Your task to perform on an android device: Clear the cart on costco. Add asus rog to the cart on costco Image 0: 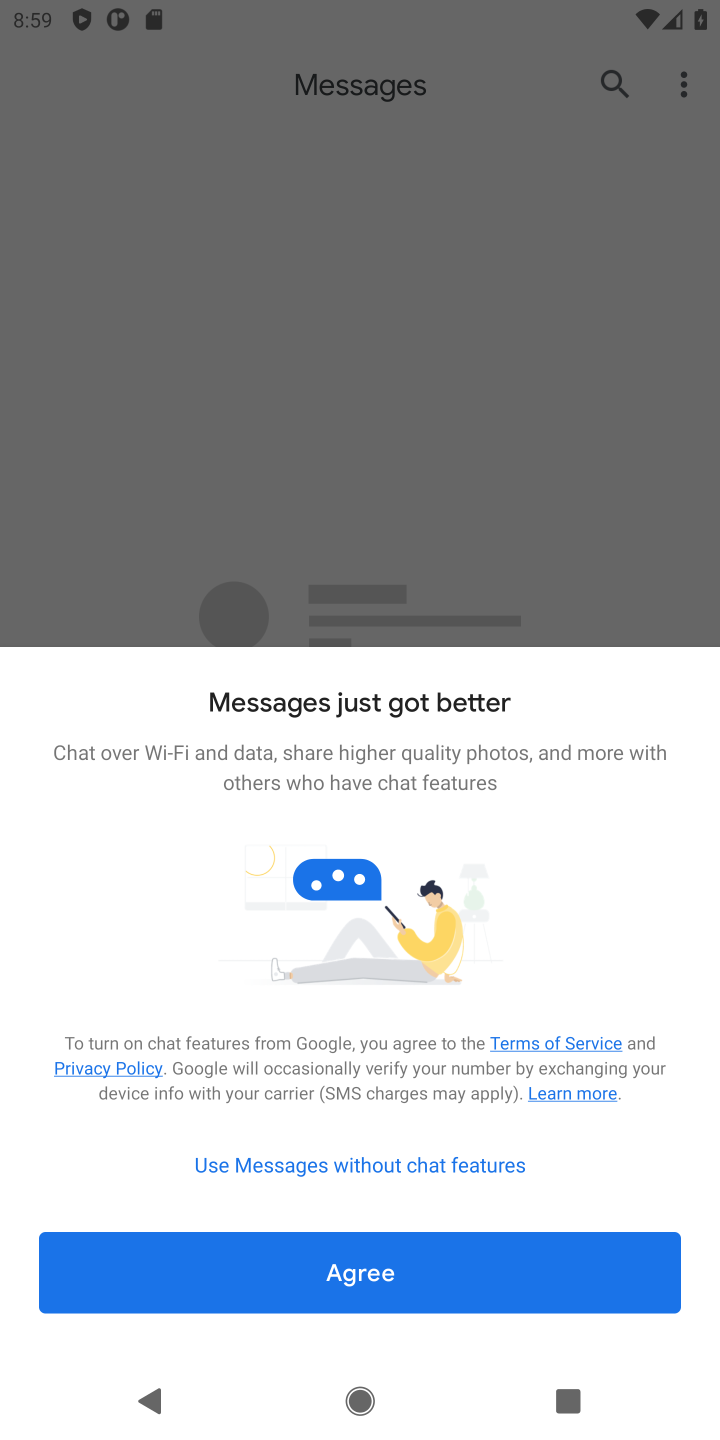
Step 0: press home button
Your task to perform on an android device: Clear the cart on costco. Add asus rog to the cart on costco Image 1: 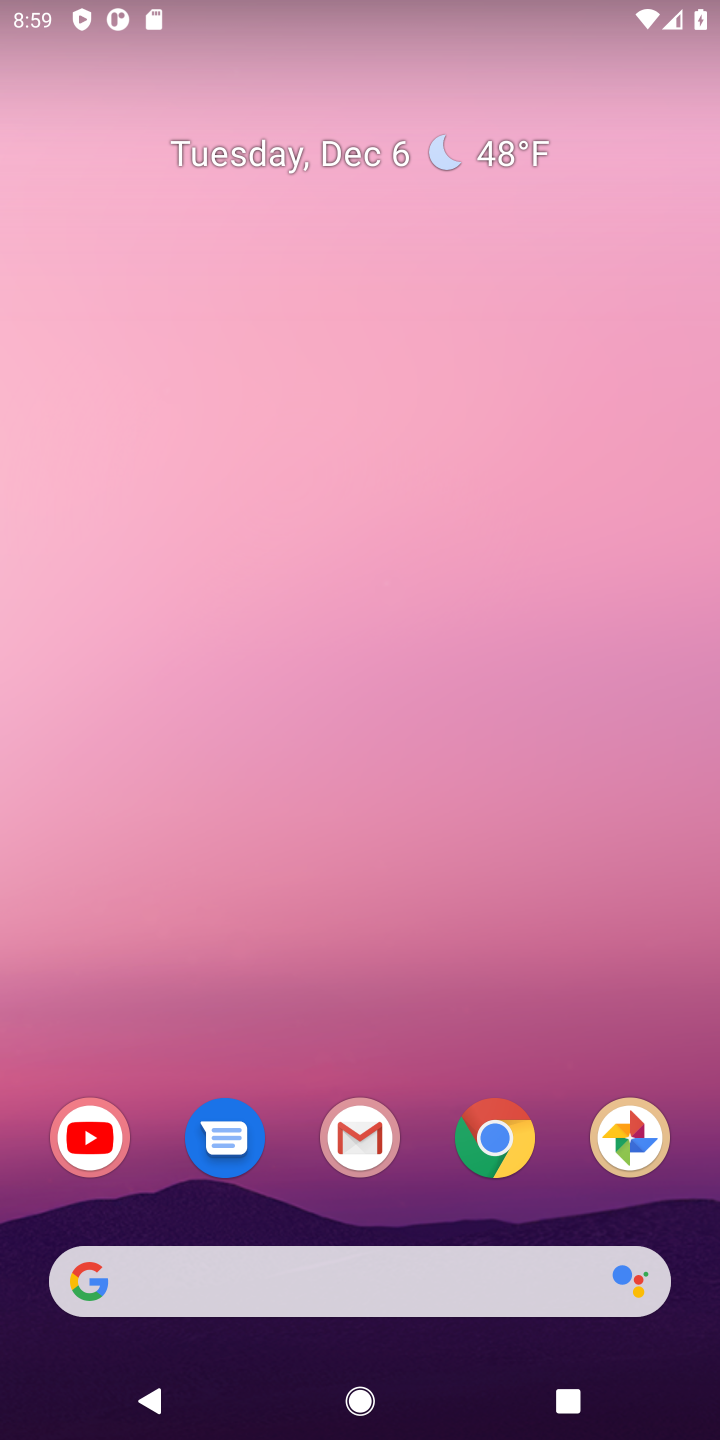
Step 1: click (494, 1148)
Your task to perform on an android device: Clear the cart on costco. Add asus rog to the cart on costco Image 2: 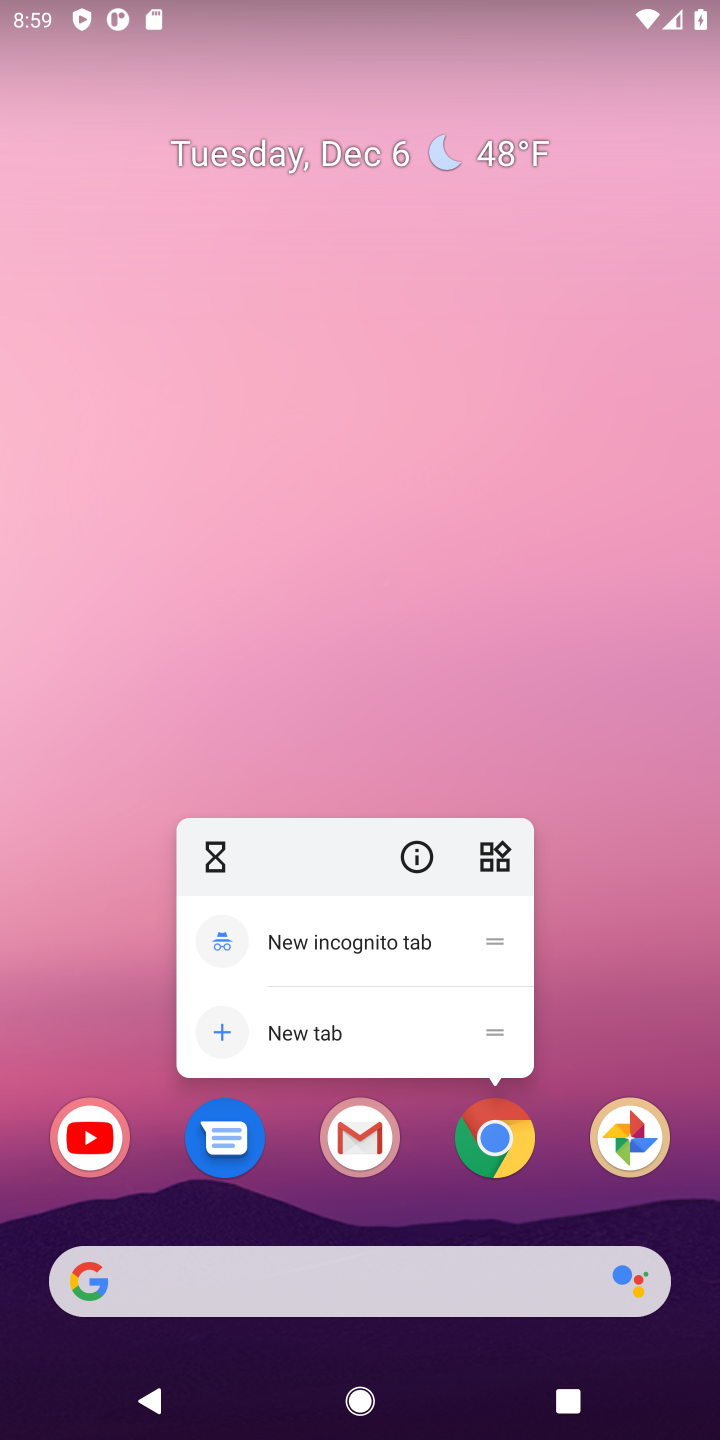
Step 2: click (494, 1148)
Your task to perform on an android device: Clear the cart on costco. Add asus rog to the cart on costco Image 3: 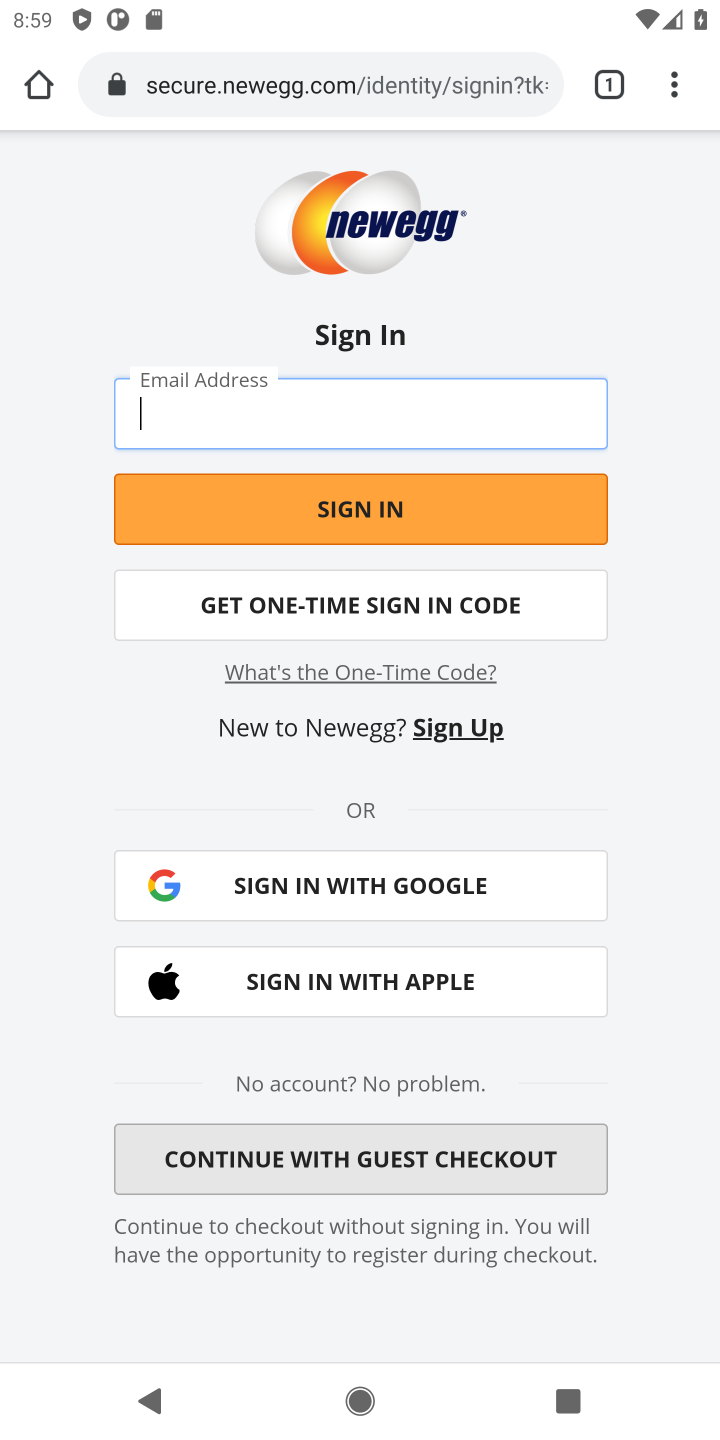
Step 3: click (320, 88)
Your task to perform on an android device: Clear the cart on costco. Add asus rog to the cart on costco Image 4: 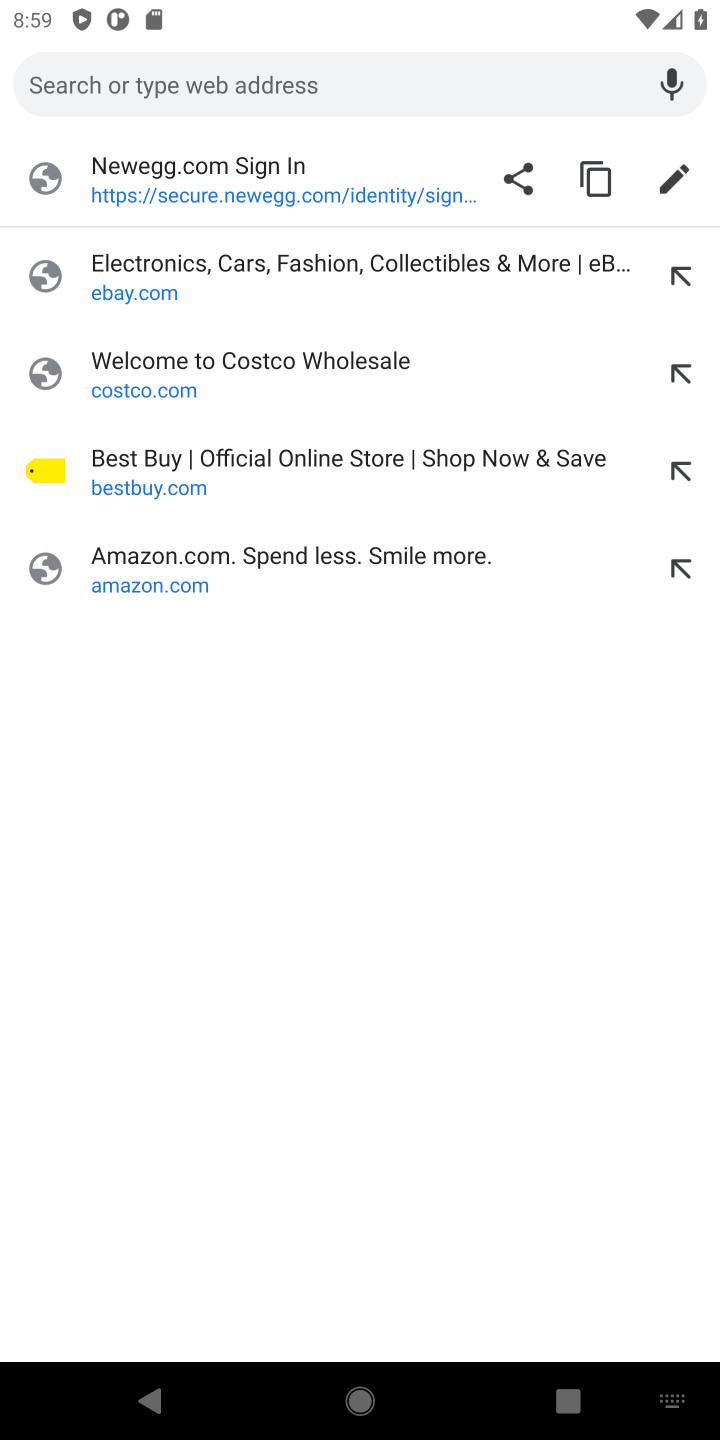
Step 4: click (147, 377)
Your task to perform on an android device: Clear the cart on costco. Add asus rog to the cart on costco Image 5: 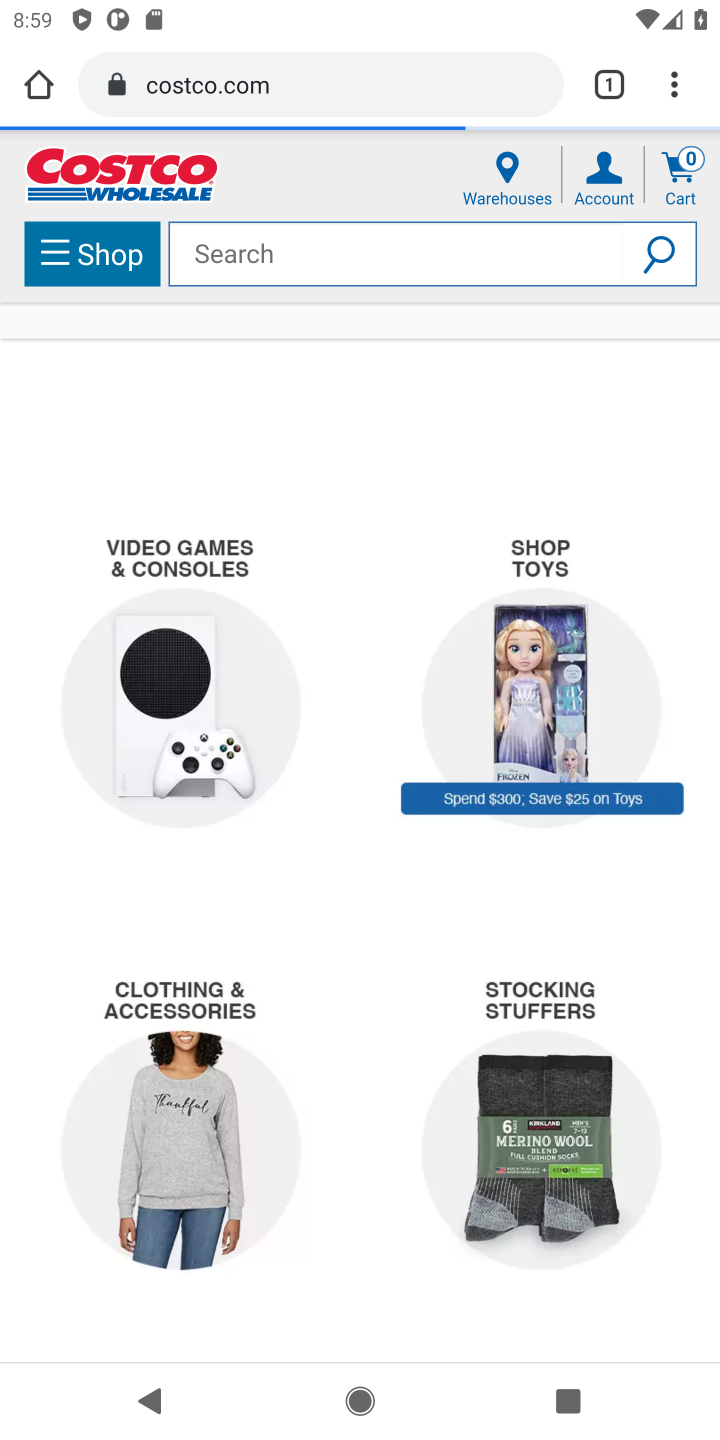
Step 5: click (679, 175)
Your task to perform on an android device: Clear the cart on costco. Add asus rog to the cart on costco Image 6: 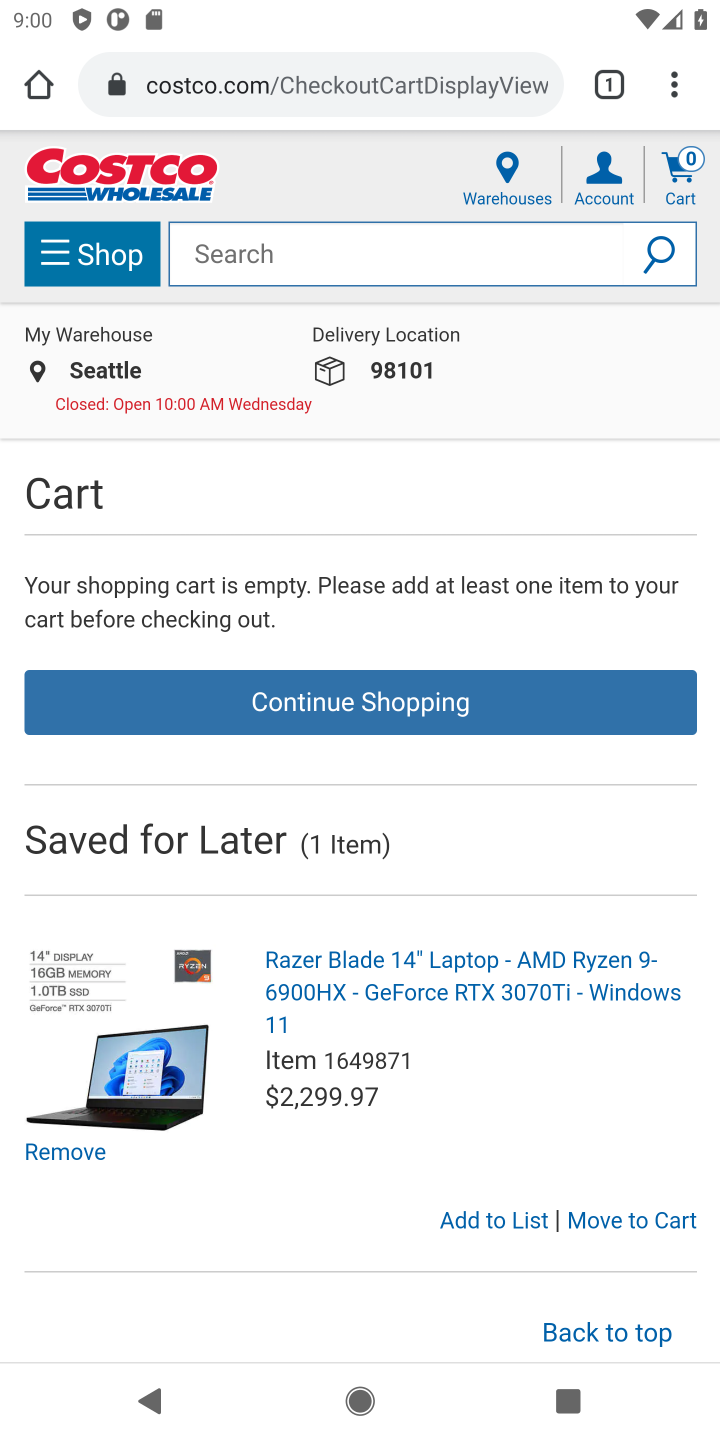
Step 6: click (237, 239)
Your task to perform on an android device: Clear the cart on costco. Add asus rog to the cart on costco Image 7: 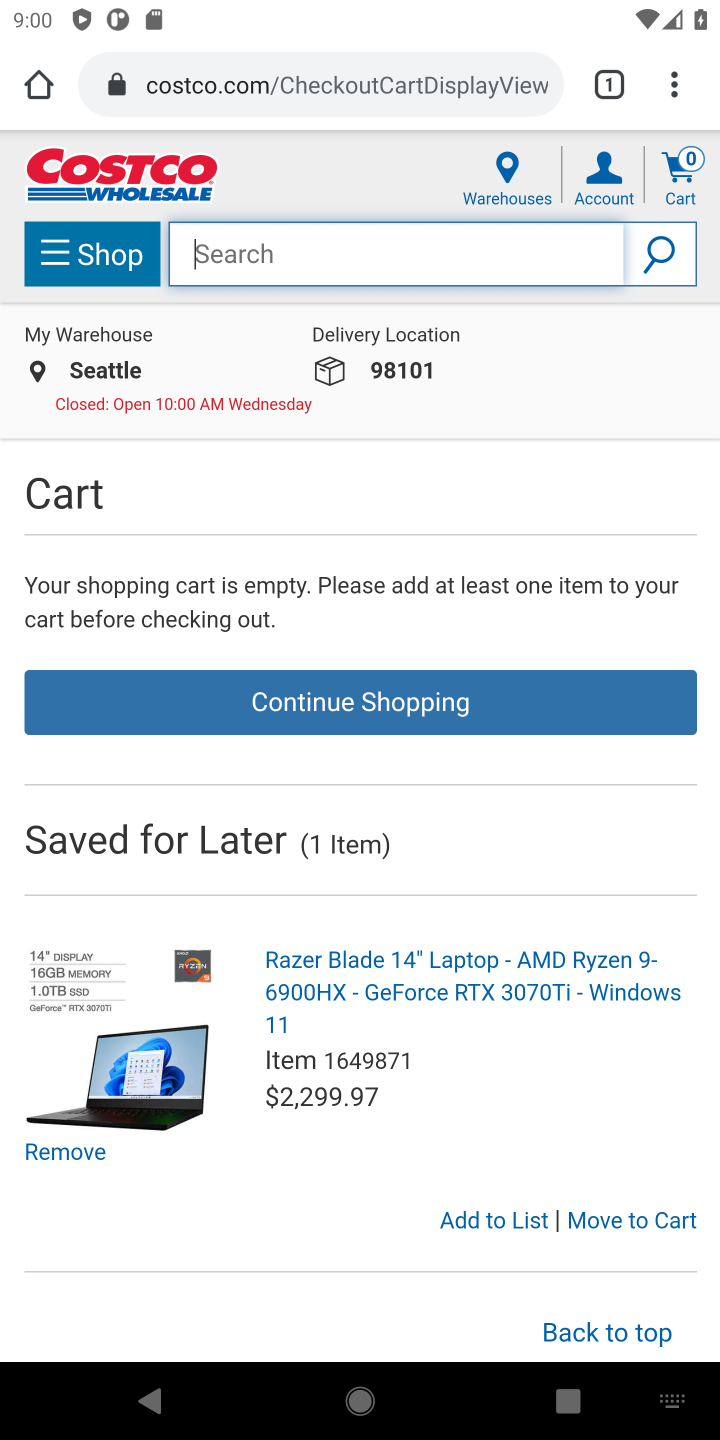
Step 7: type "asus rog"
Your task to perform on an android device: Clear the cart on costco. Add asus rog to the cart on costco Image 8: 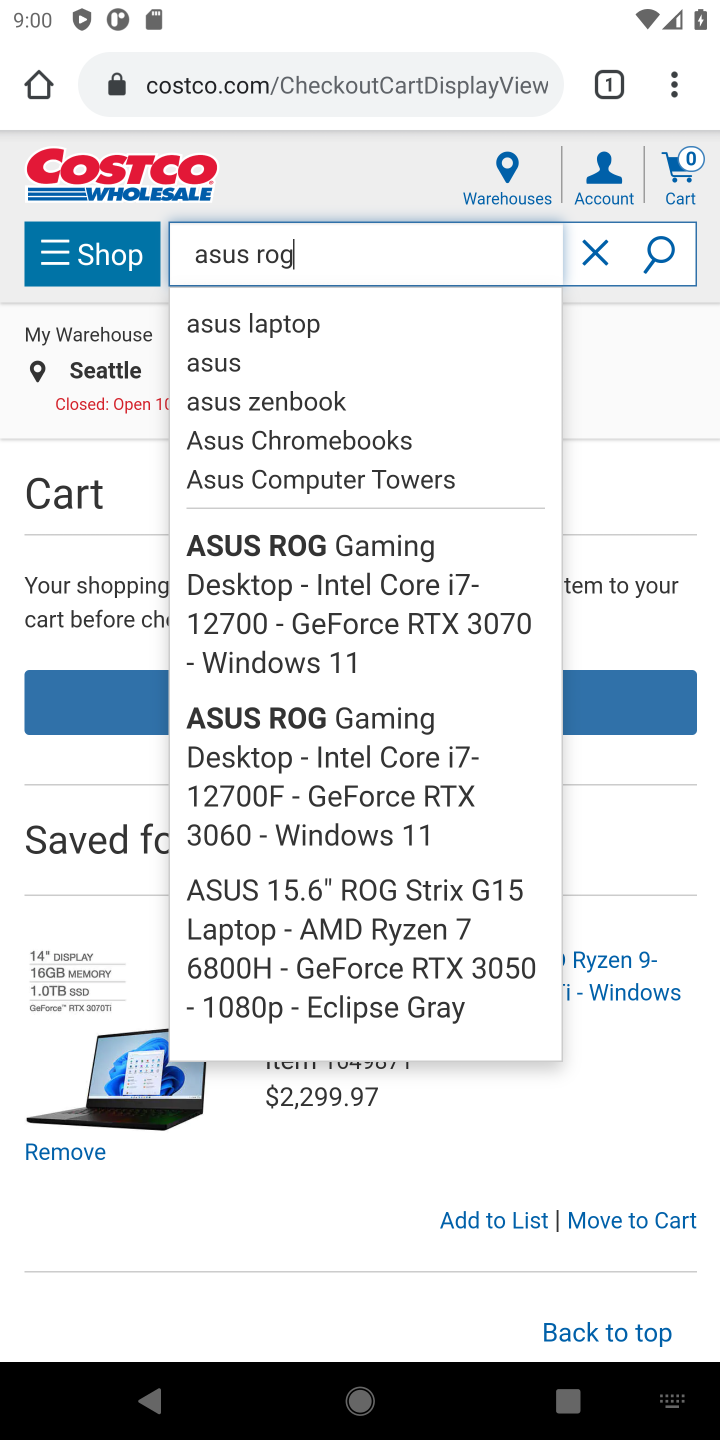
Step 8: click (646, 259)
Your task to perform on an android device: Clear the cart on costco. Add asus rog to the cart on costco Image 9: 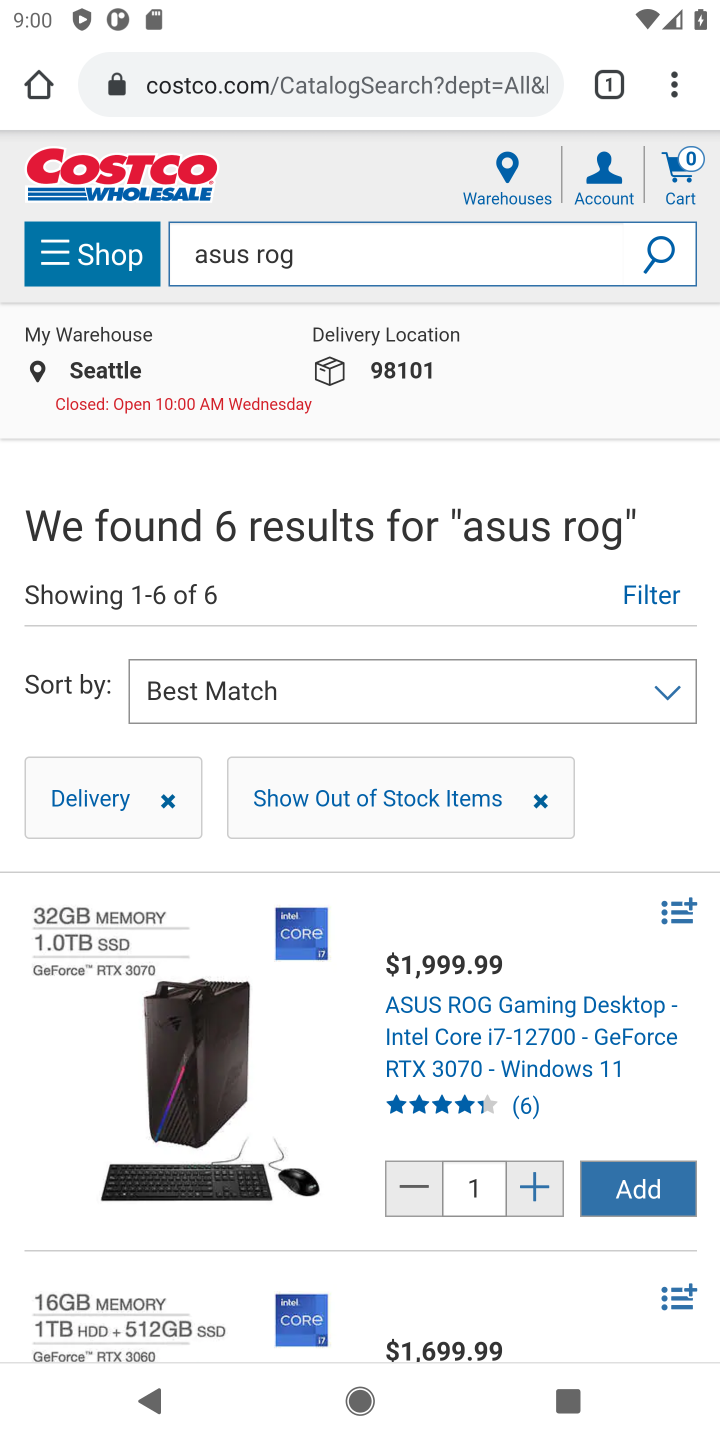
Step 9: click (630, 1200)
Your task to perform on an android device: Clear the cart on costco. Add asus rog to the cart on costco Image 10: 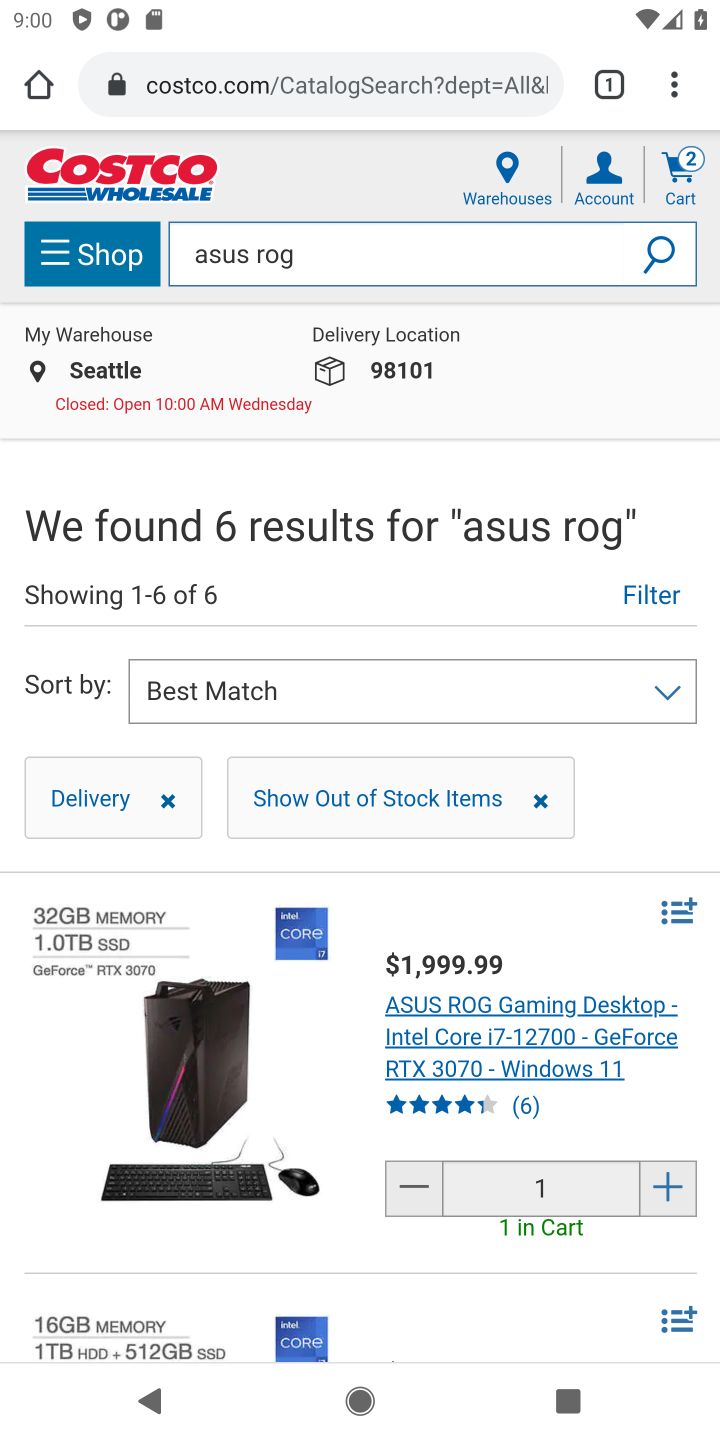
Step 10: task complete